Your task to perform on an android device: What's the weather today? Image 0: 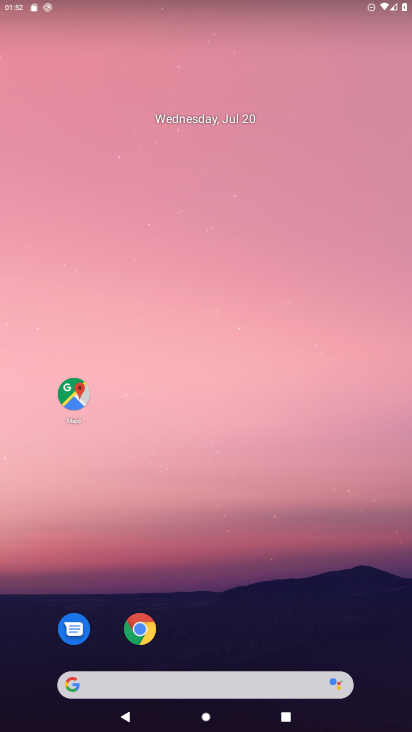
Step 0: click (148, 691)
Your task to perform on an android device: What's the weather today? Image 1: 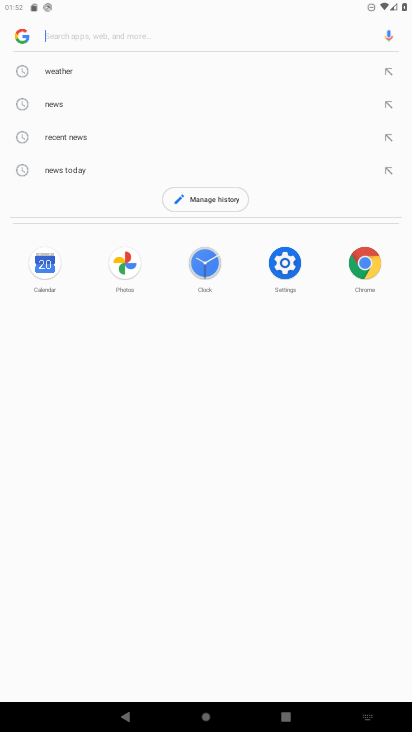
Step 1: drag from (39, 63) to (400, 550)
Your task to perform on an android device: What's the weather today? Image 2: 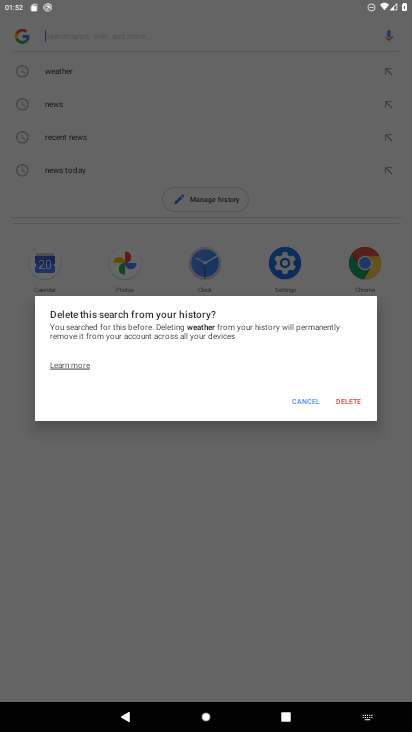
Step 2: press home button
Your task to perform on an android device: What's the weather today? Image 3: 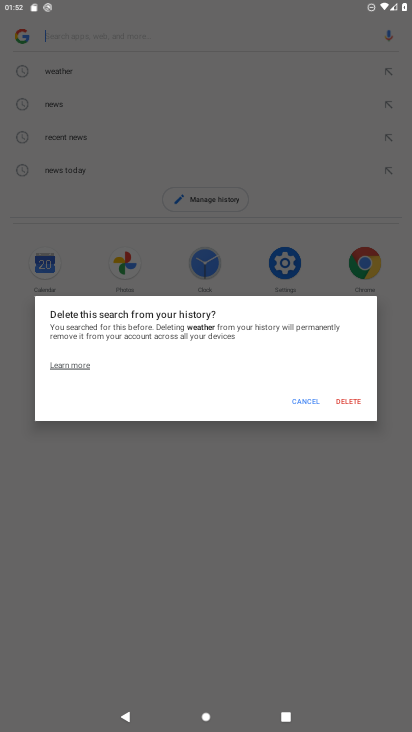
Step 3: drag from (400, 550) to (274, 684)
Your task to perform on an android device: What's the weather today? Image 4: 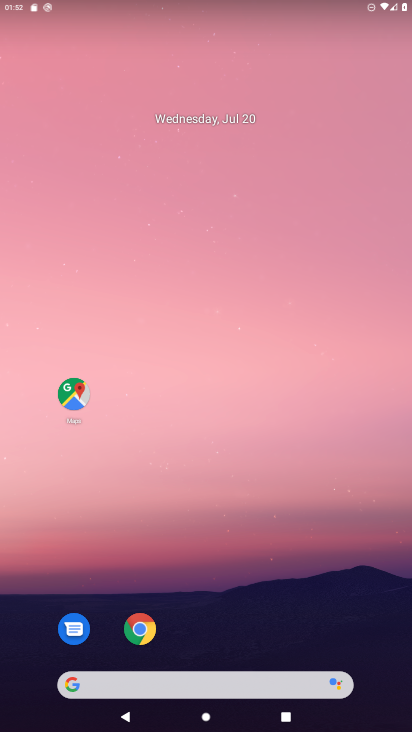
Step 4: click (203, 677)
Your task to perform on an android device: What's the weather today? Image 5: 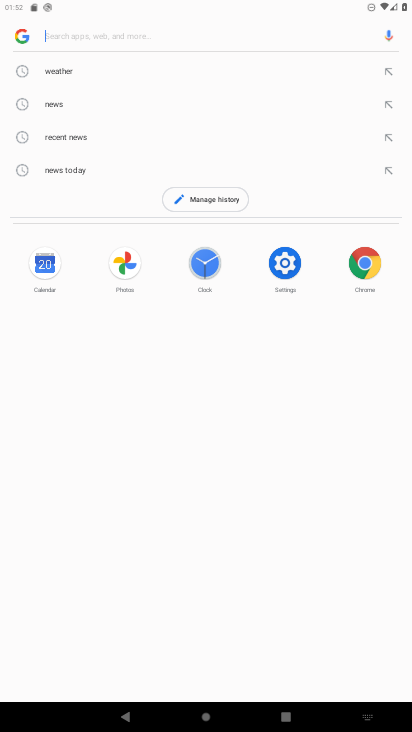
Step 5: click (71, 72)
Your task to perform on an android device: What's the weather today? Image 6: 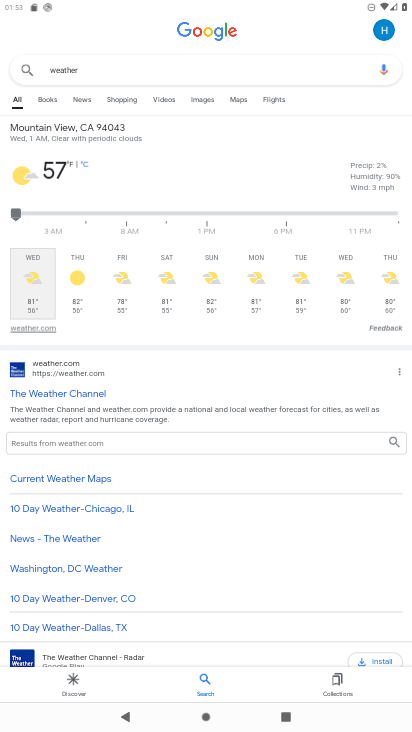
Step 6: task complete